Your task to perform on an android device: Open Google Chrome Image 0: 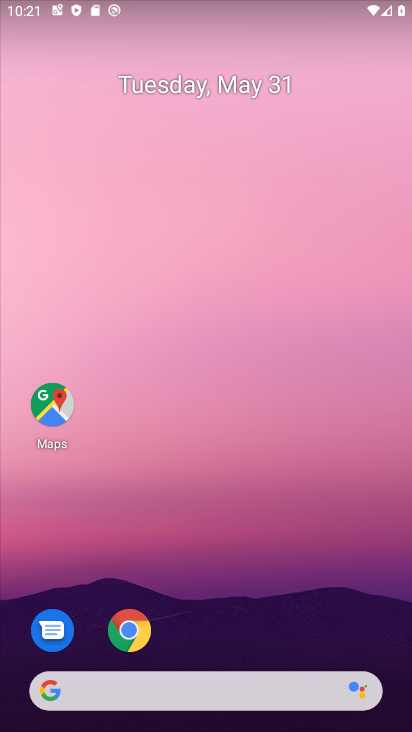
Step 0: drag from (218, 674) to (229, 213)
Your task to perform on an android device: Open Google Chrome Image 1: 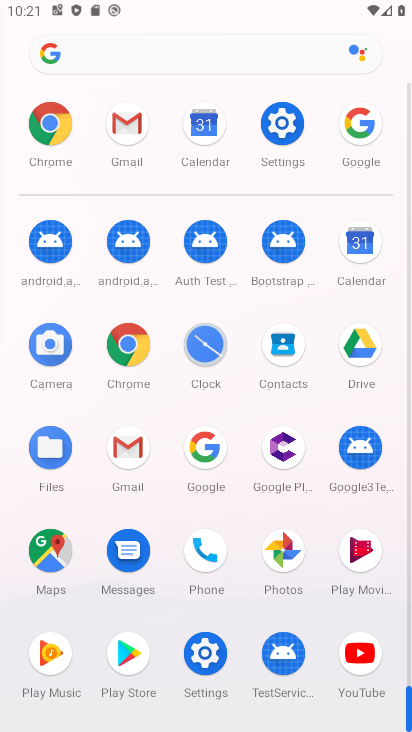
Step 1: click (133, 359)
Your task to perform on an android device: Open Google Chrome Image 2: 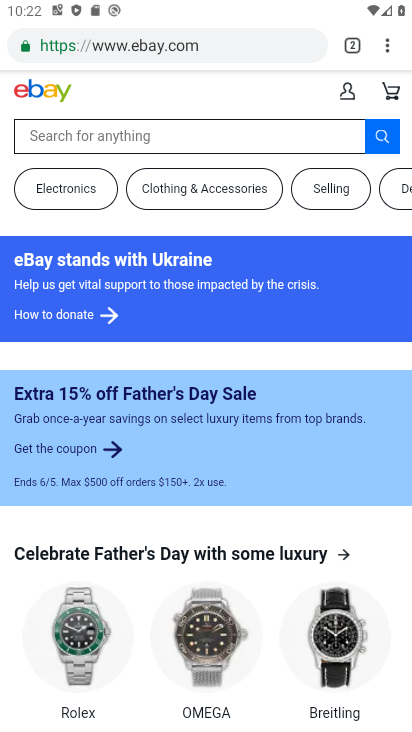
Step 2: task complete